Your task to perform on an android device: Turn on the flashlight Image 0: 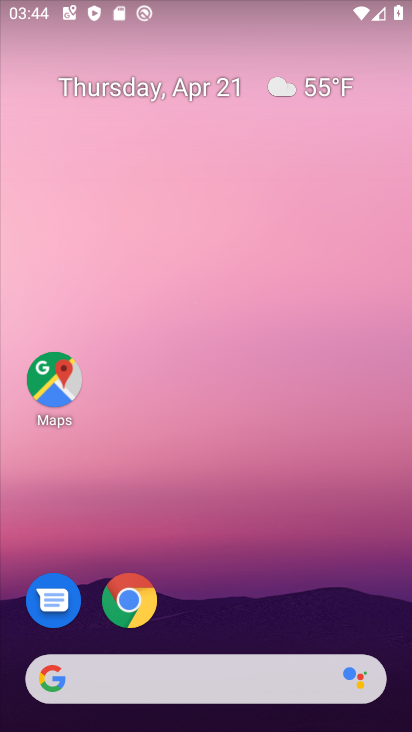
Step 0: drag from (258, 534) to (349, 95)
Your task to perform on an android device: Turn on the flashlight Image 1: 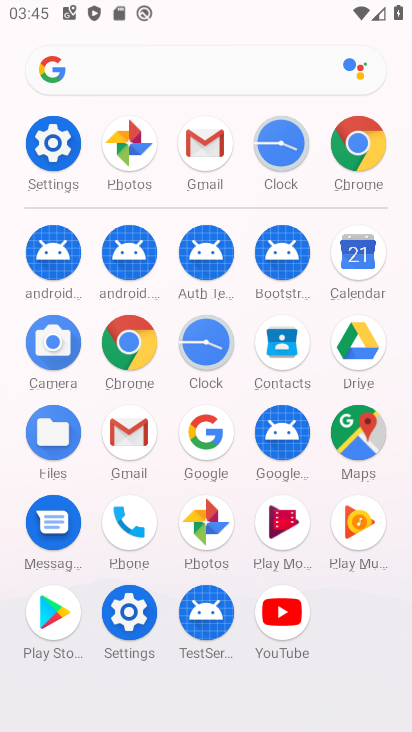
Step 1: click (62, 132)
Your task to perform on an android device: Turn on the flashlight Image 2: 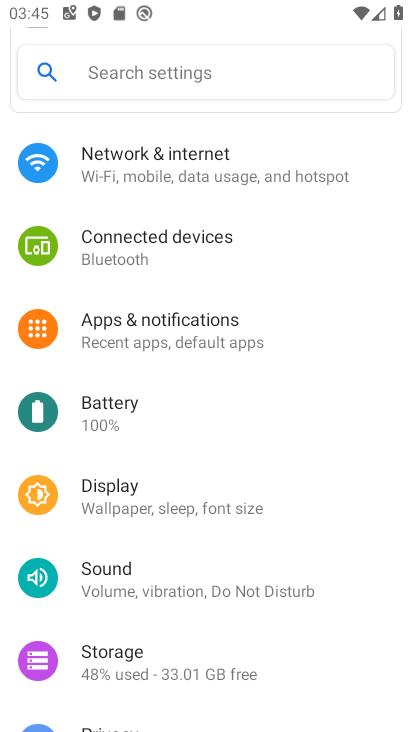
Step 2: task complete